Your task to perform on an android device: delete location history Image 0: 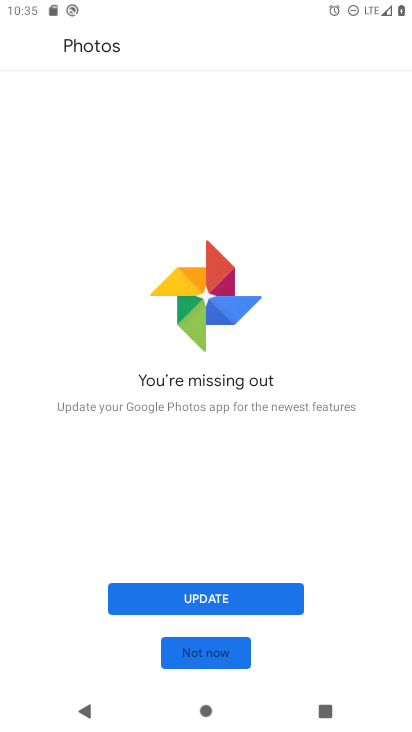
Step 0: press home button
Your task to perform on an android device: delete location history Image 1: 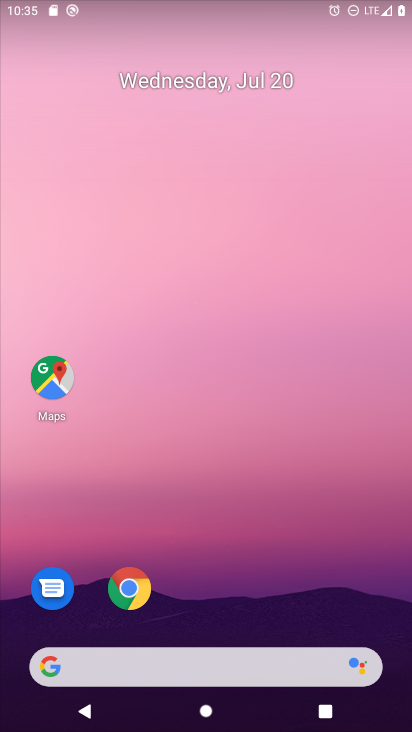
Step 1: click (39, 390)
Your task to perform on an android device: delete location history Image 2: 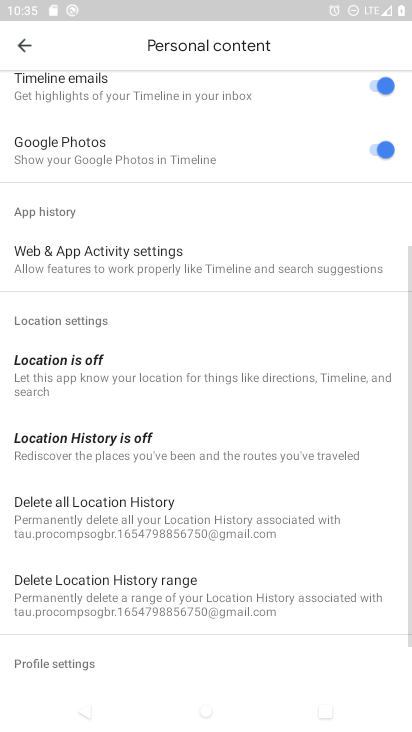
Step 2: click (167, 516)
Your task to perform on an android device: delete location history Image 3: 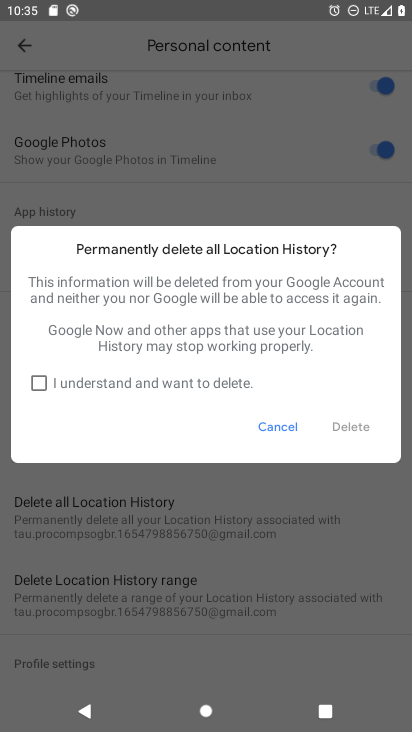
Step 3: click (33, 385)
Your task to perform on an android device: delete location history Image 4: 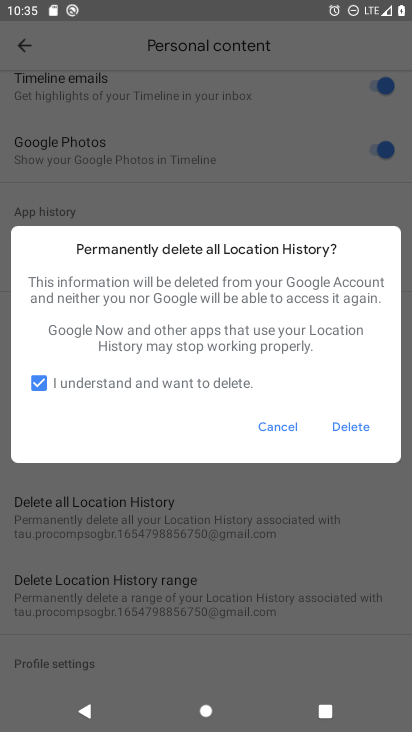
Step 4: click (354, 432)
Your task to perform on an android device: delete location history Image 5: 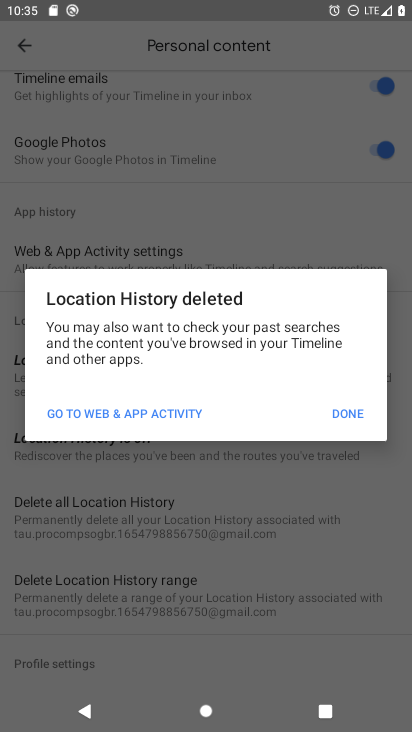
Step 5: click (350, 412)
Your task to perform on an android device: delete location history Image 6: 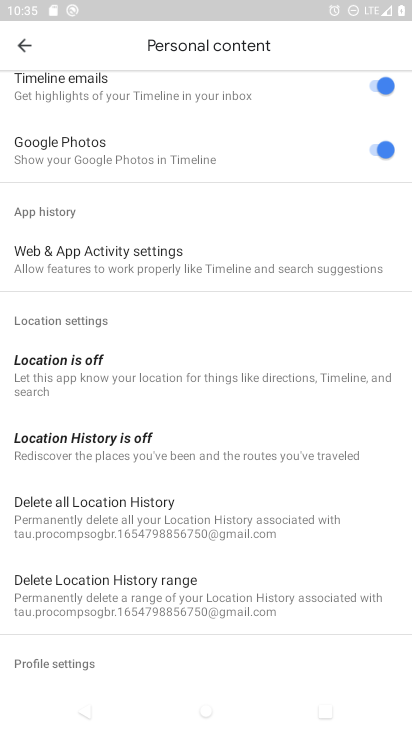
Step 6: task complete